Your task to perform on an android device: Open calendar and show me the second week of next month Image 0: 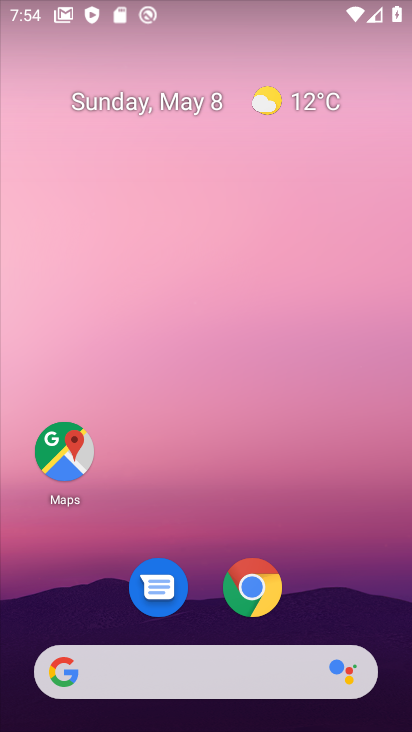
Step 0: drag from (325, 621) to (311, 167)
Your task to perform on an android device: Open calendar and show me the second week of next month Image 1: 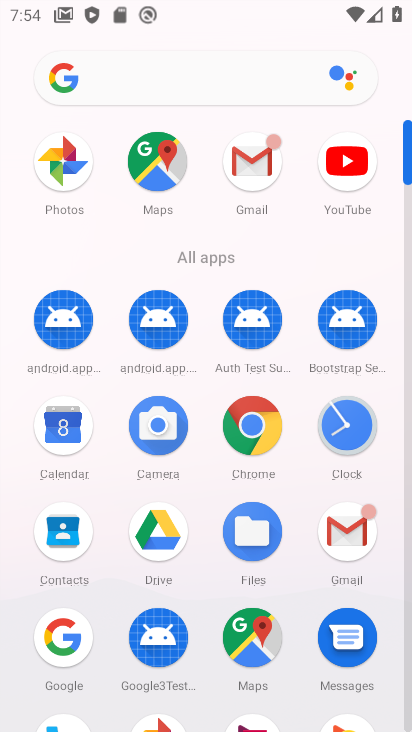
Step 1: click (58, 426)
Your task to perform on an android device: Open calendar and show me the second week of next month Image 2: 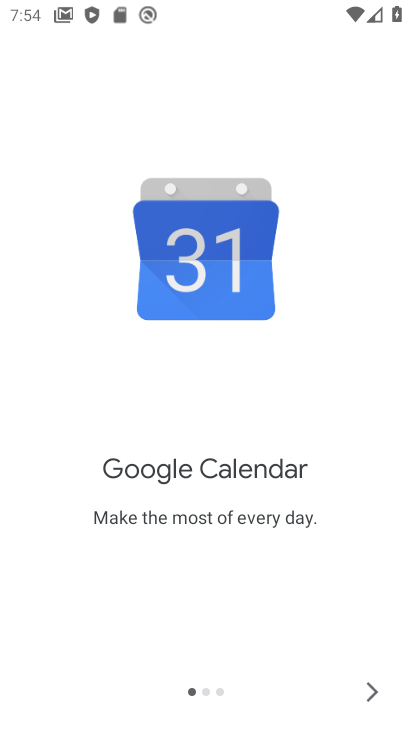
Step 2: click (377, 693)
Your task to perform on an android device: Open calendar and show me the second week of next month Image 3: 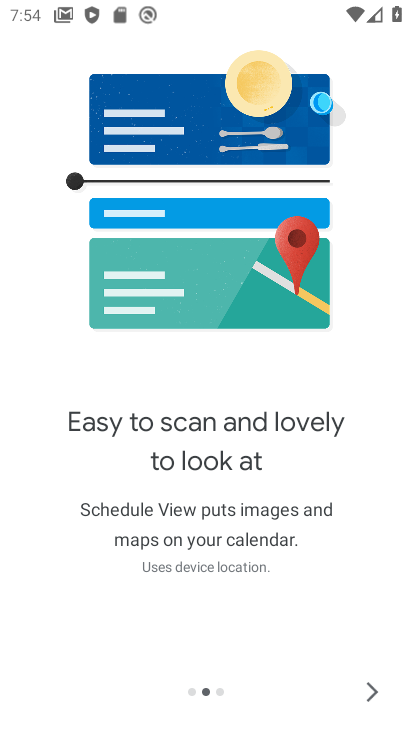
Step 3: click (377, 693)
Your task to perform on an android device: Open calendar and show me the second week of next month Image 4: 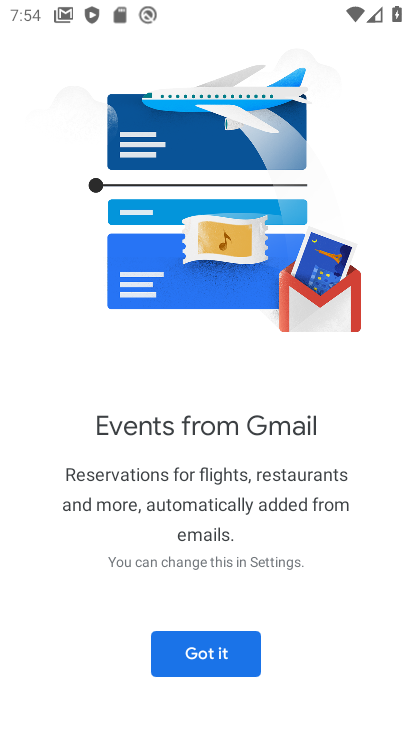
Step 4: click (196, 647)
Your task to perform on an android device: Open calendar and show me the second week of next month Image 5: 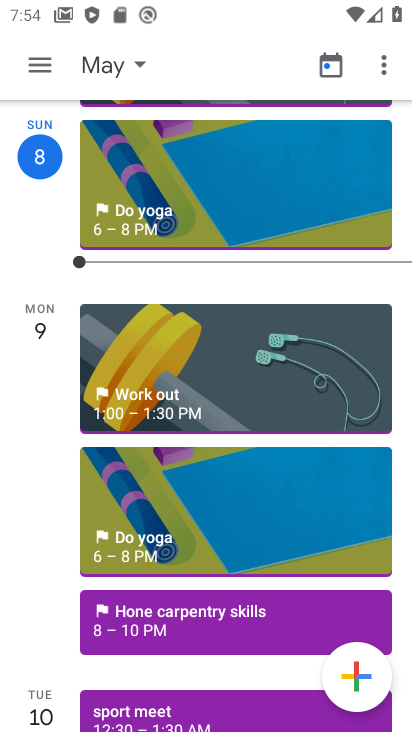
Step 5: click (122, 75)
Your task to perform on an android device: Open calendar and show me the second week of next month Image 6: 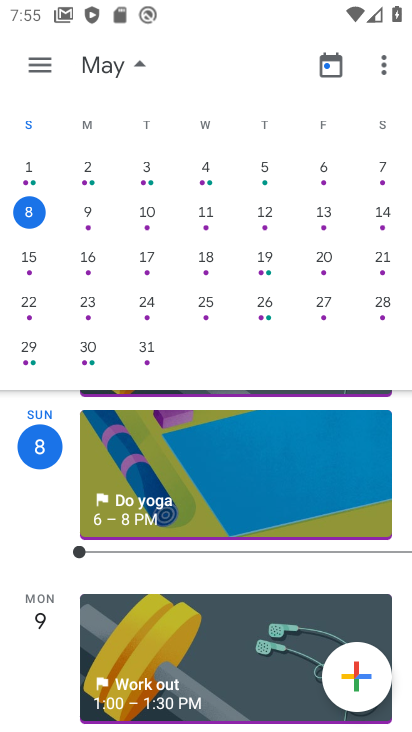
Step 6: drag from (391, 232) to (8, 181)
Your task to perform on an android device: Open calendar and show me the second week of next month Image 7: 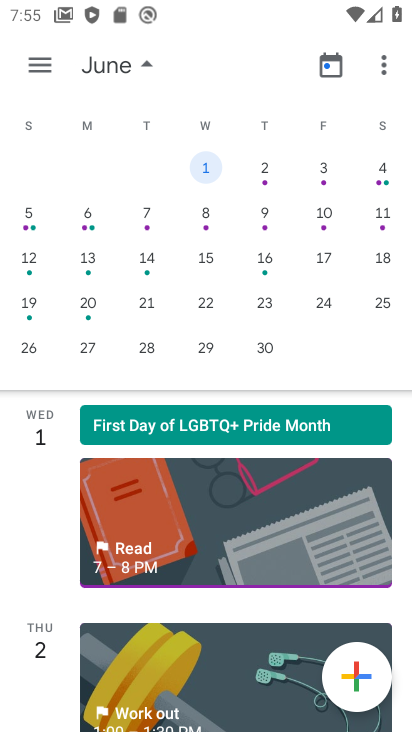
Step 7: click (52, 68)
Your task to perform on an android device: Open calendar and show me the second week of next month Image 8: 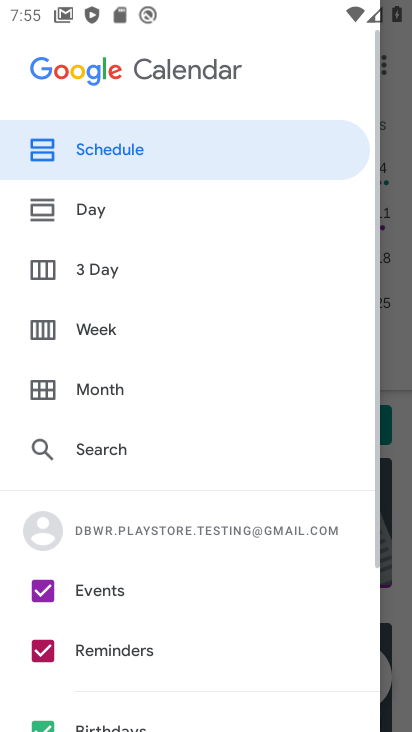
Step 8: click (173, 332)
Your task to perform on an android device: Open calendar and show me the second week of next month Image 9: 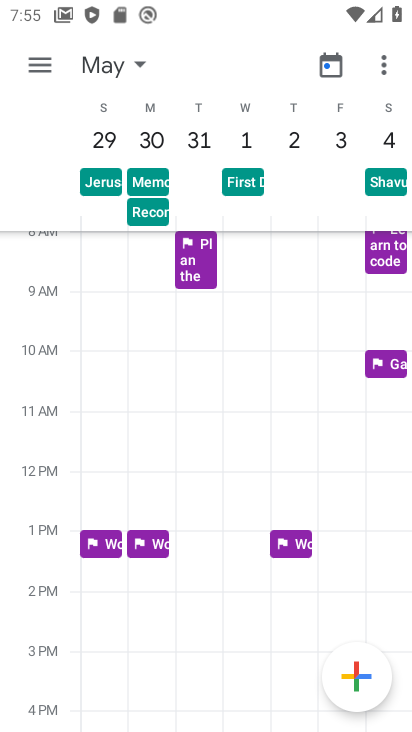
Step 9: task complete